Your task to perform on an android device: set an alarm Image 0: 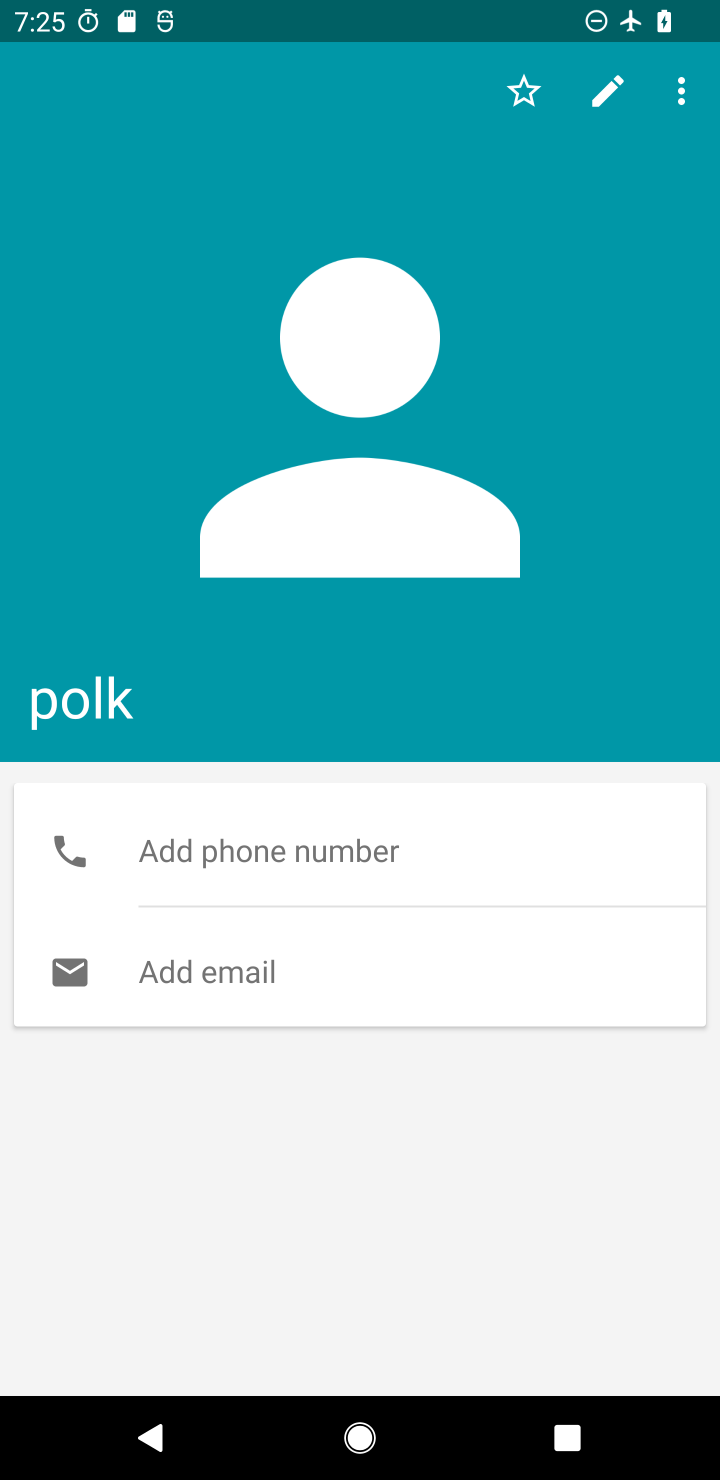
Step 0: press home button
Your task to perform on an android device: set an alarm Image 1: 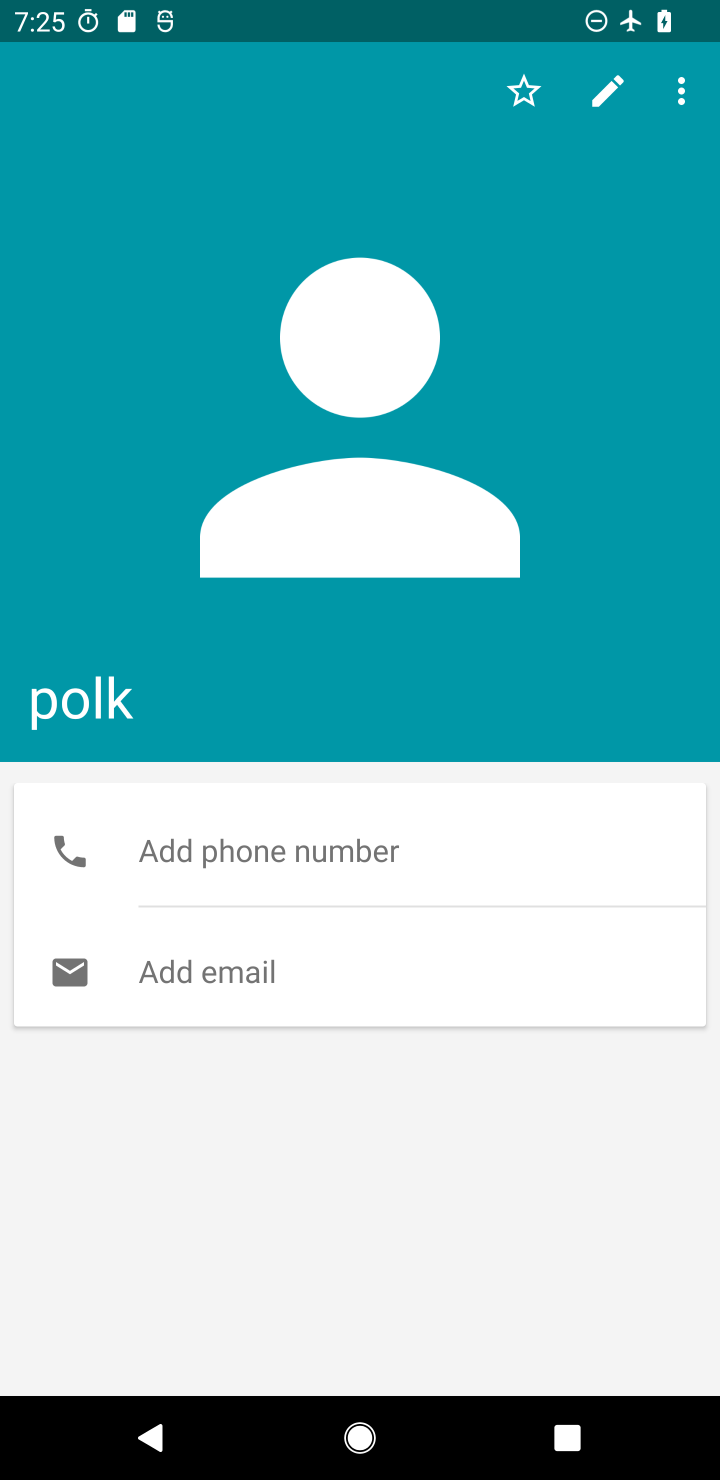
Step 1: press home button
Your task to perform on an android device: set an alarm Image 2: 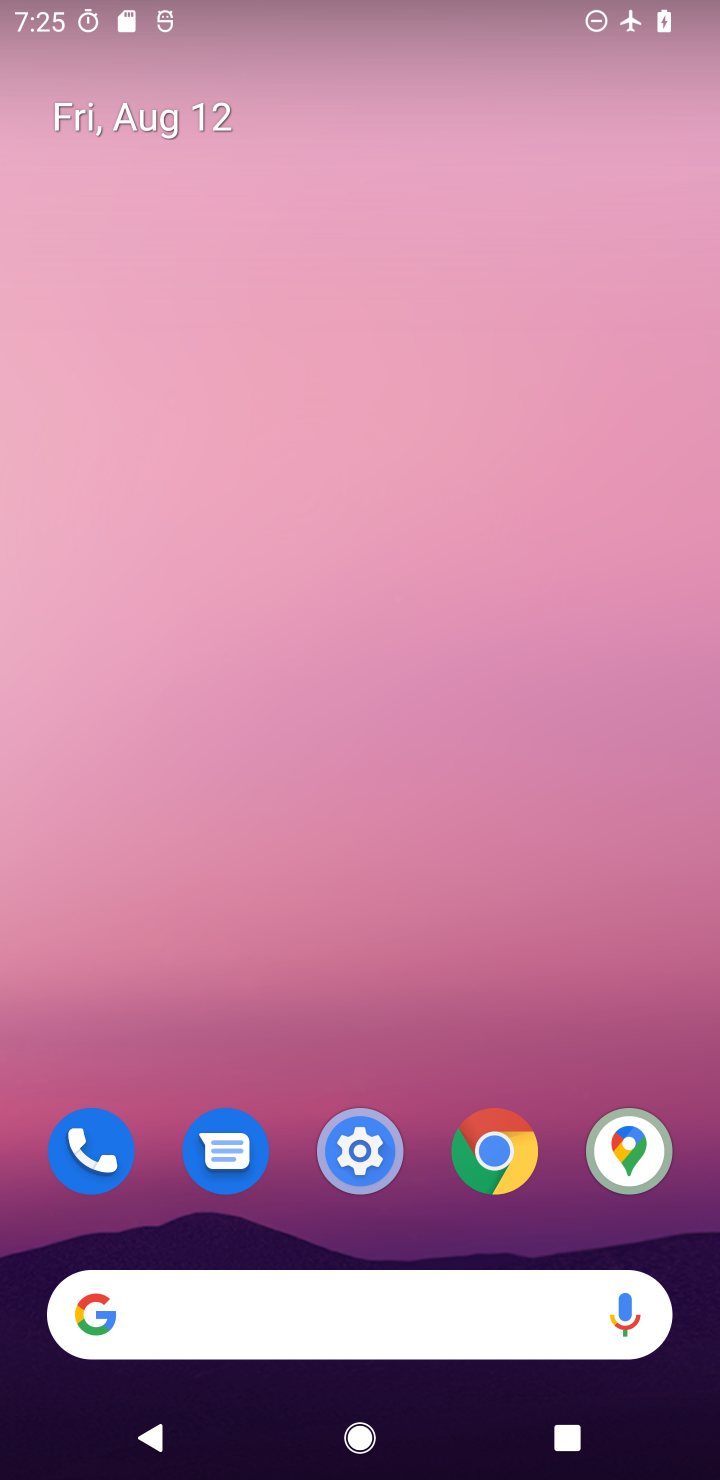
Step 2: drag from (441, 1000) to (538, 9)
Your task to perform on an android device: set an alarm Image 3: 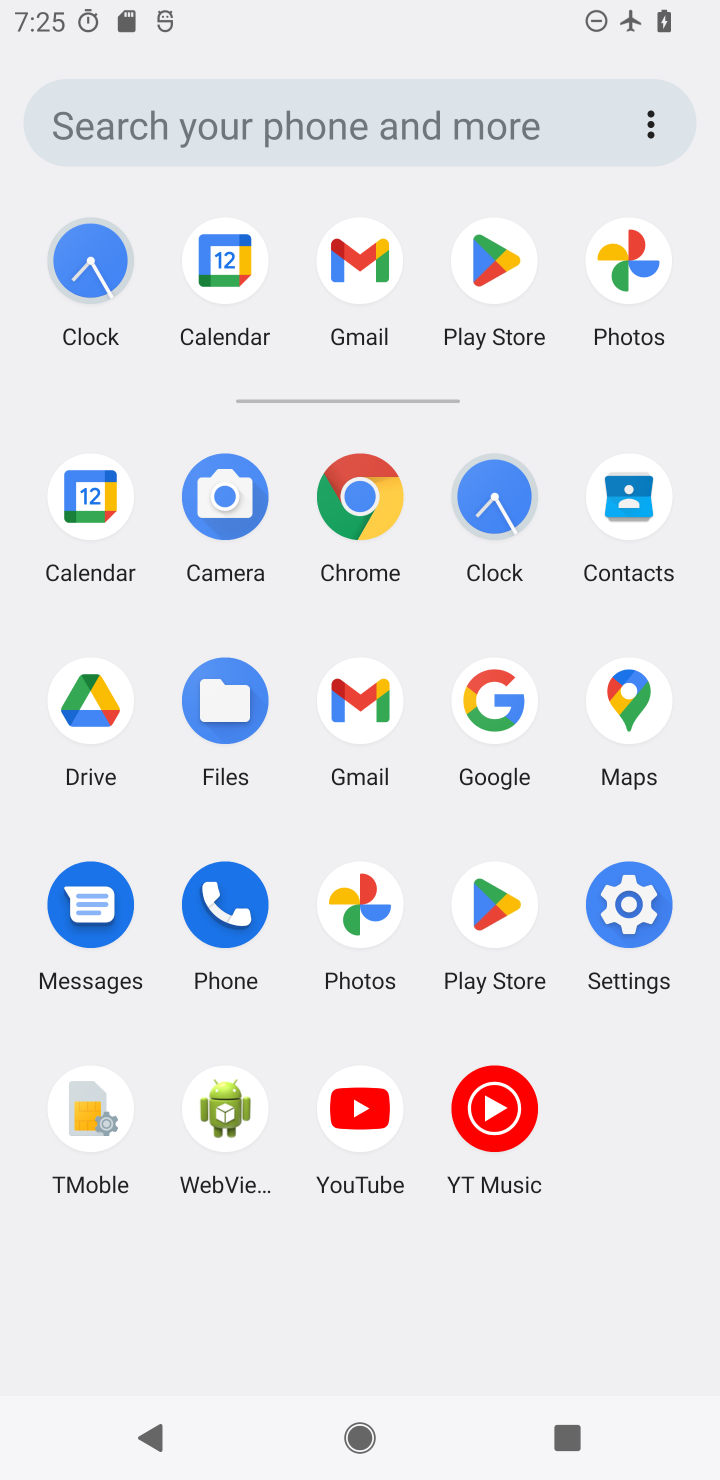
Step 3: click (482, 498)
Your task to perform on an android device: set an alarm Image 4: 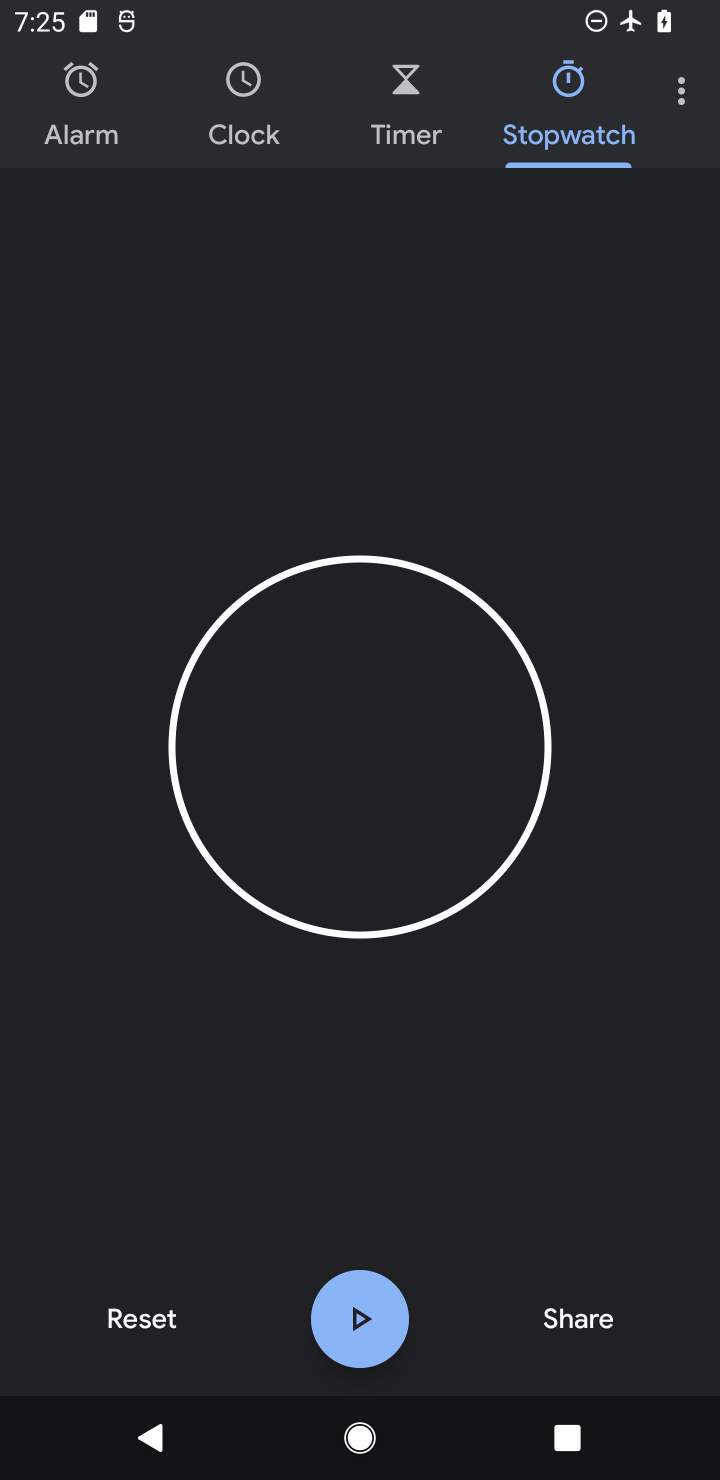
Step 4: click (123, 124)
Your task to perform on an android device: set an alarm Image 5: 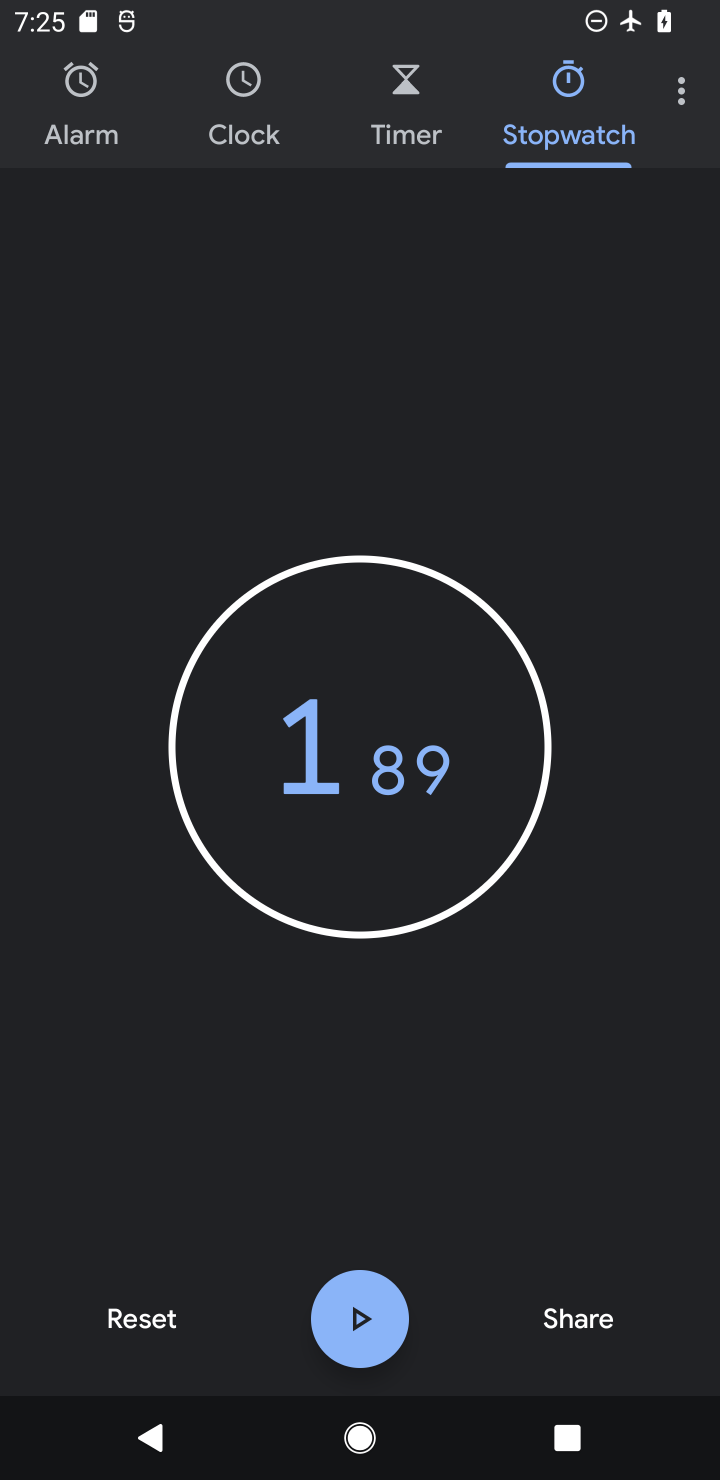
Step 5: click (81, 117)
Your task to perform on an android device: set an alarm Image 6: 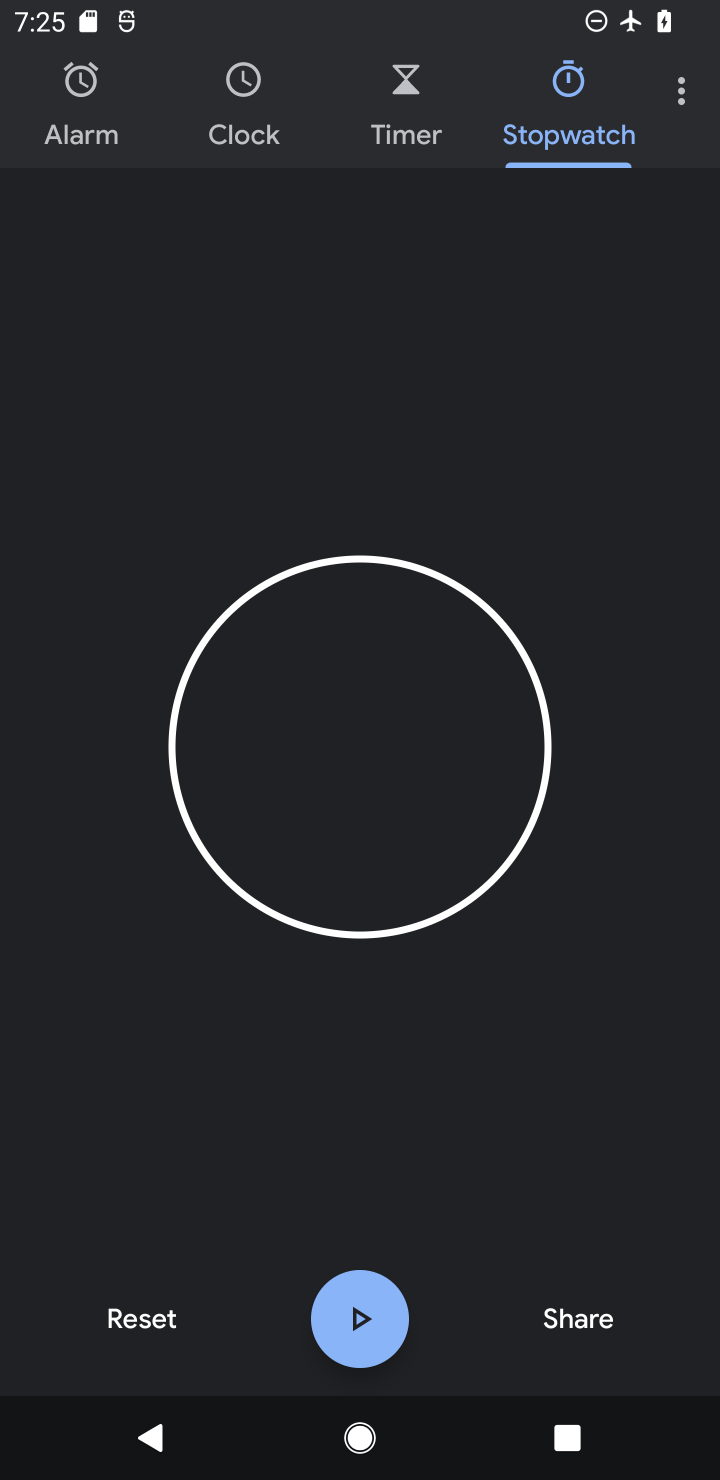
Step 6: click (103, 119)
Your task to perform on an android device: set an alarm Image 7: 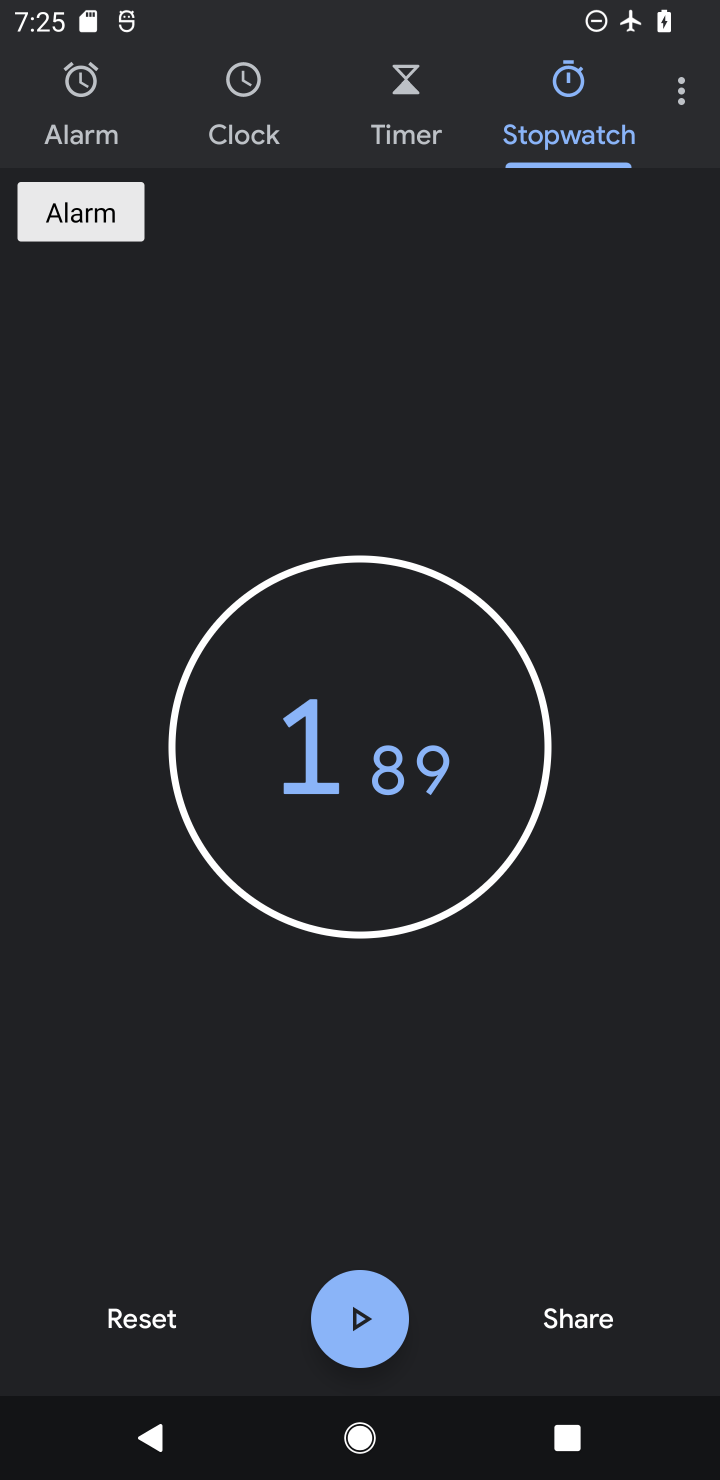
Step 7: click (113, 136)
Your task to perform on an android device: set an alarm Image 8: 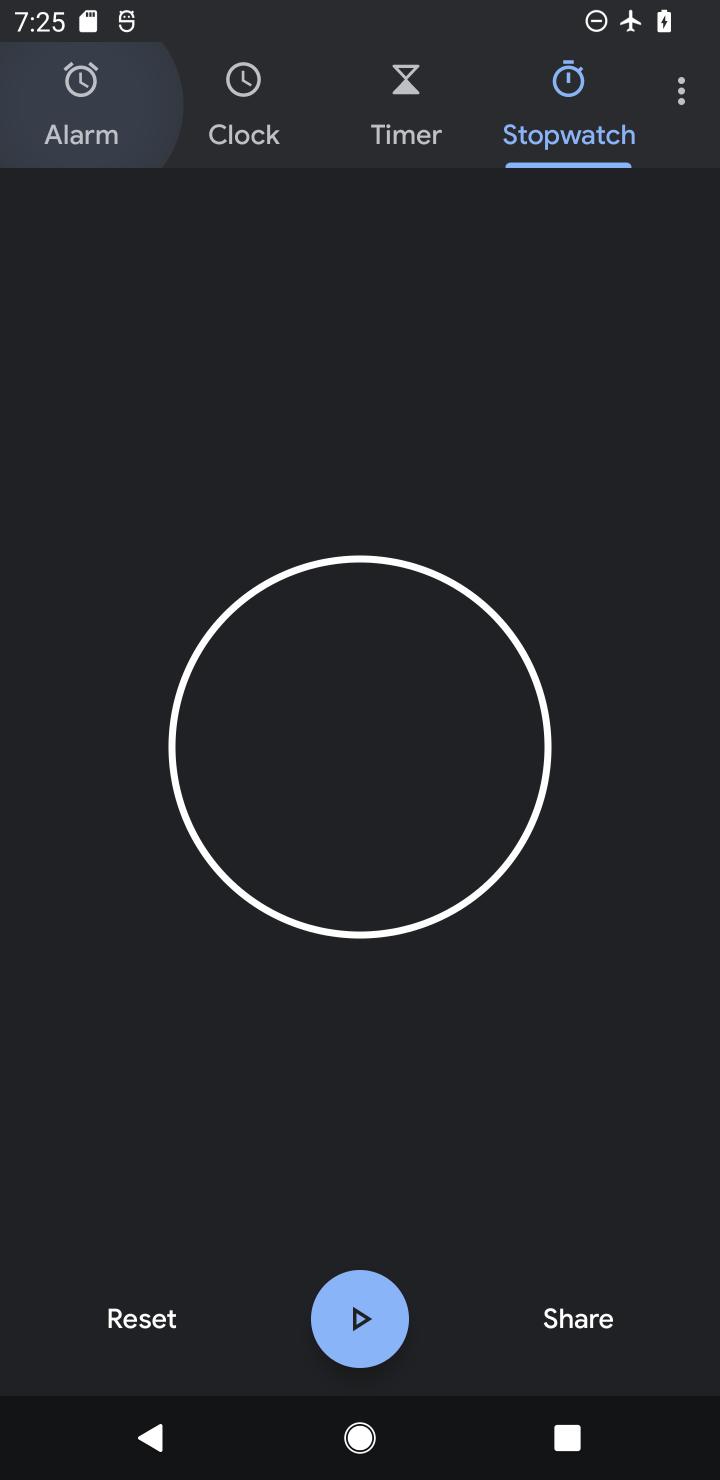
Step 8: click (113, 136)
Your task to perform on an android device: set an alarm Image 9: 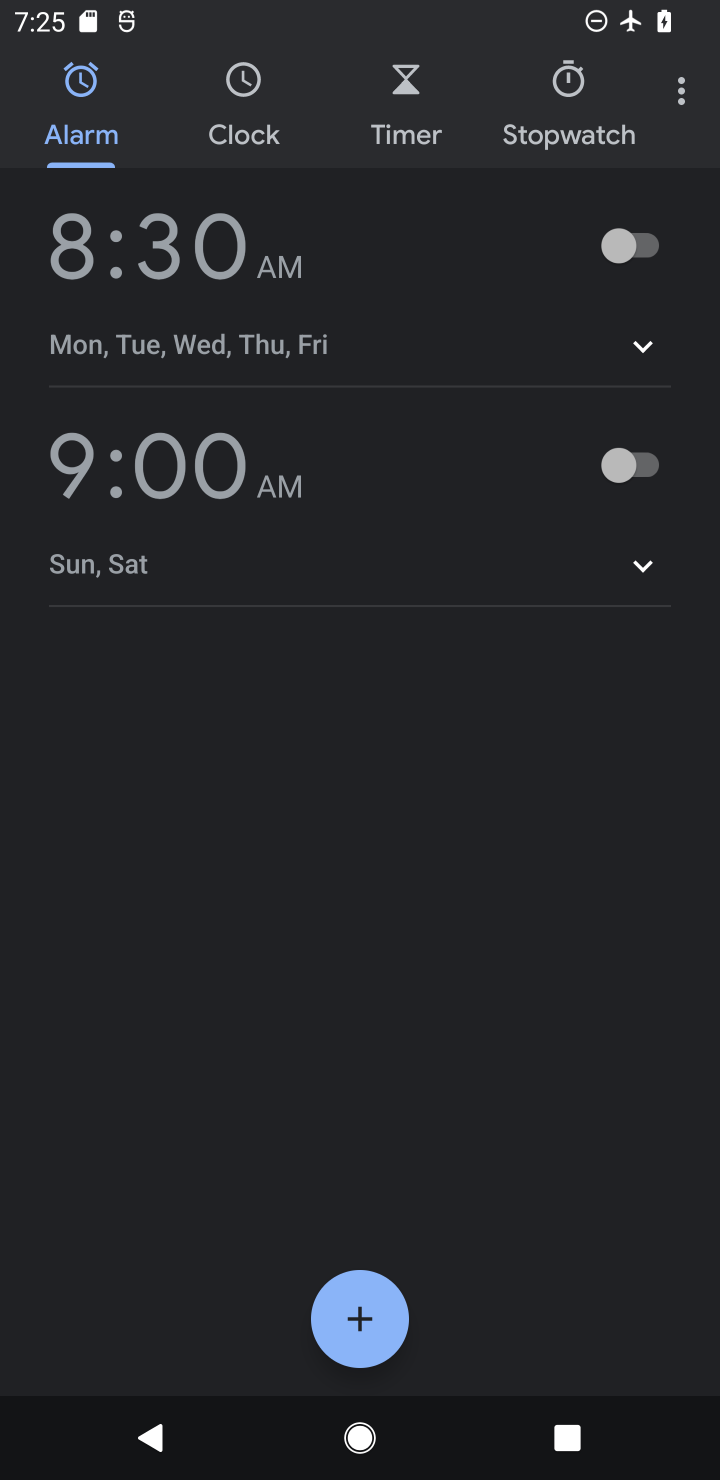
Step 9: click (361, 1303)
Your task to perform on an android device: set an alarm Image 10: 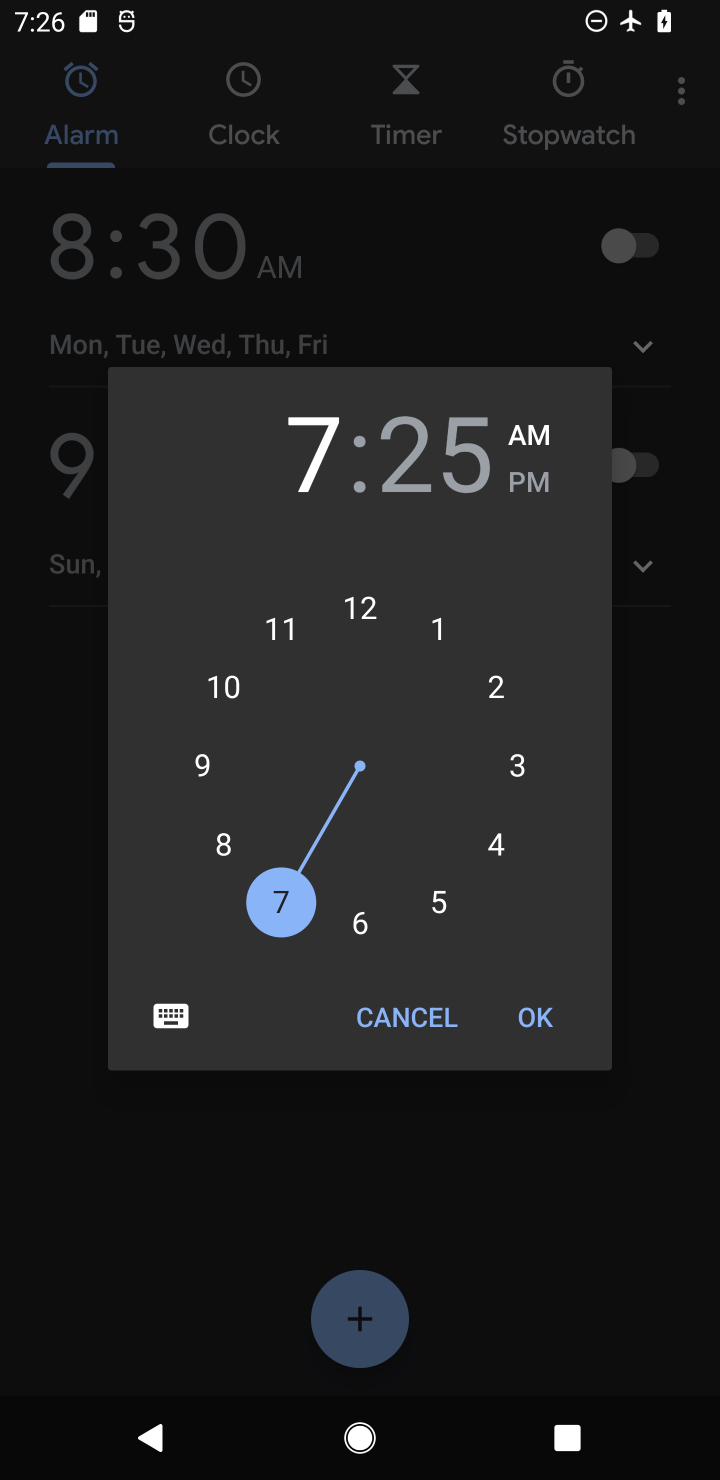
Step 10: click (551, 1009)
Your task to perform on an android device: set an alarm Image 11: 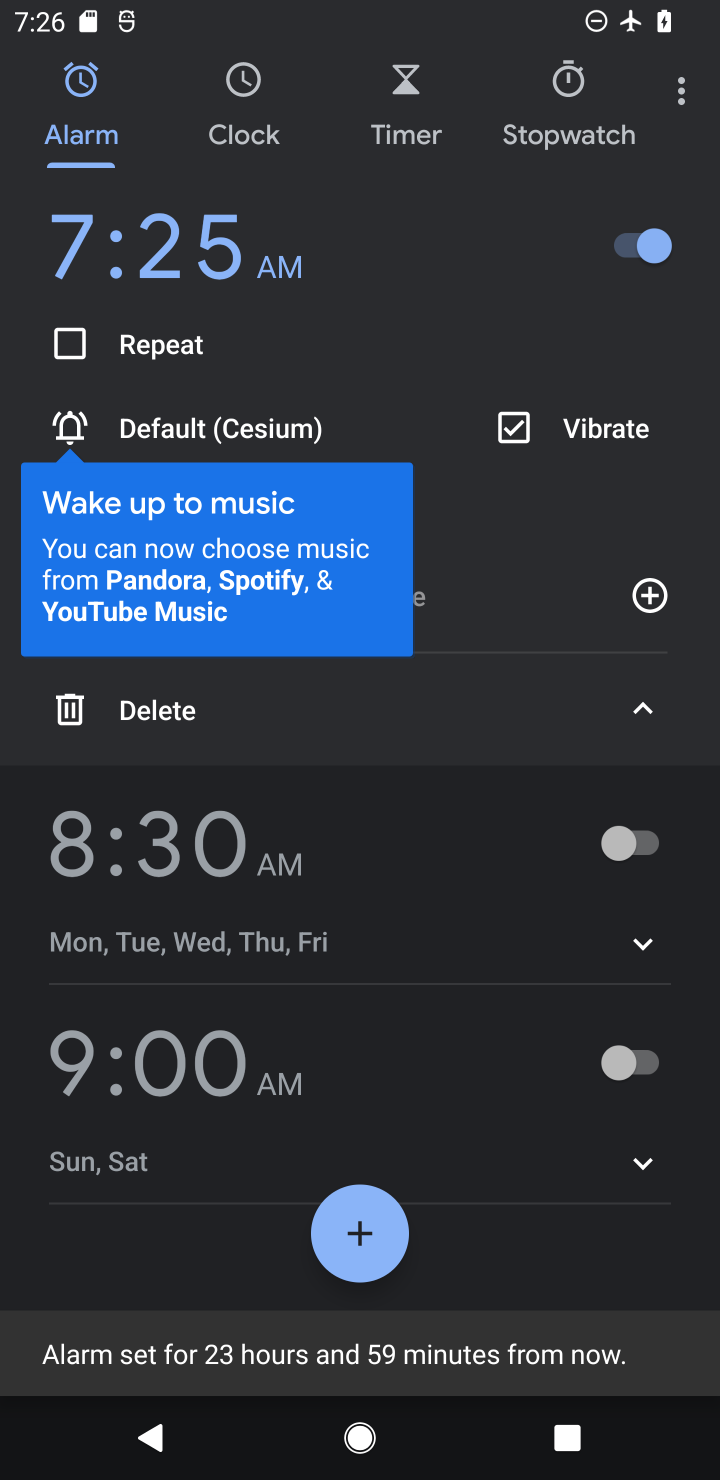
Step 11: task complete